Your task to perform on an android device: Turn off the flashlight Image 0: 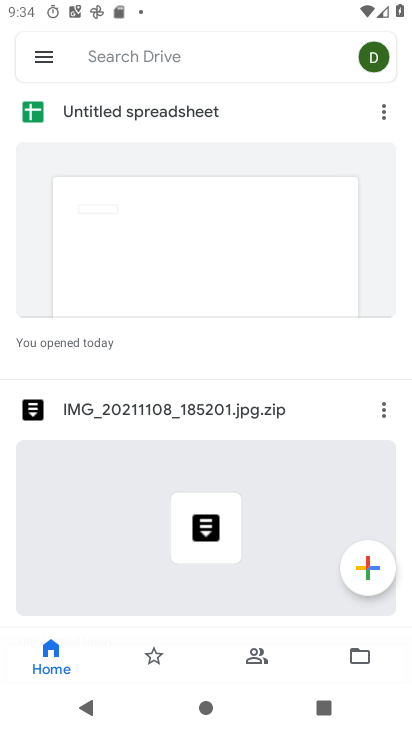
Step 0: drag from (203, 4) to (191, 467)
Your task to perform on an android device: Turn off the flashlight Image 1: 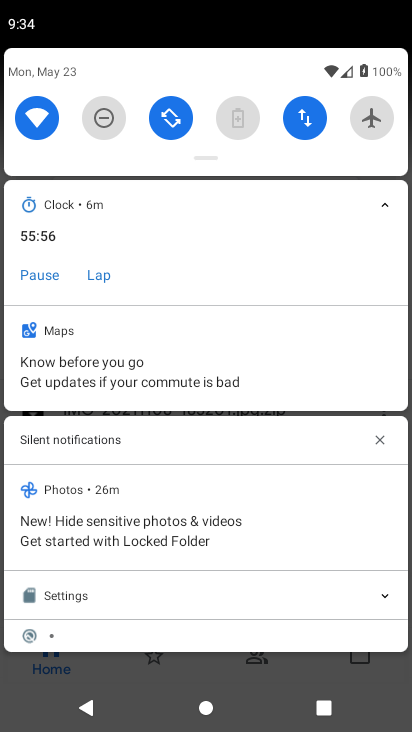
Step 1: task complete